Your task to perform on an android device: Set the phone to "Do not disturb". Image 0: 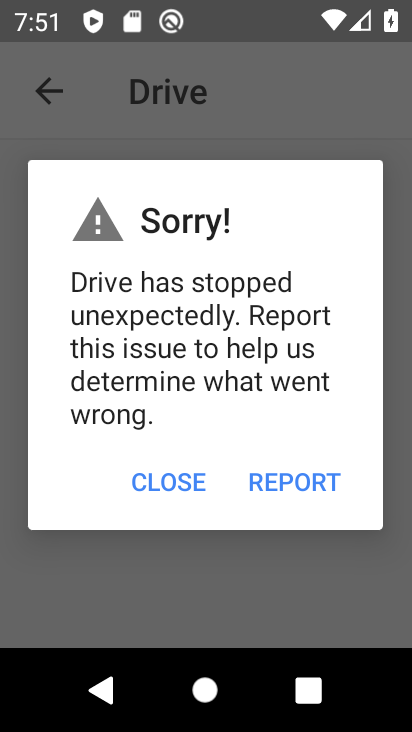
Step 0: press home button
Your task to perform on an android device: Set the phone to "Do not disturb". Image 1: 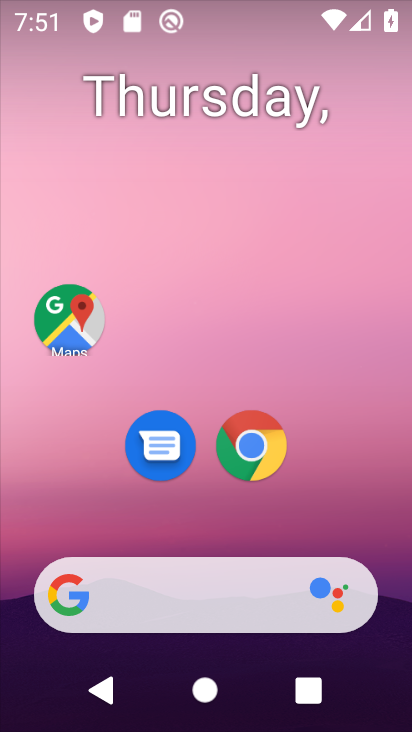
Step 1: drag from (341, 541) to (340, 7)
Your task to perform on an android device: Set the phone to "Do not disturb". Image 2: 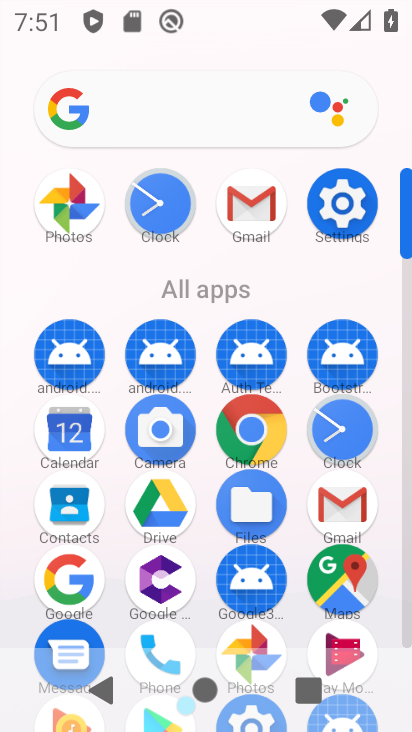
Step 2: click (330, 205)
Your task to perform on an android device: Set the phone to "Do not disturb". Image 3: 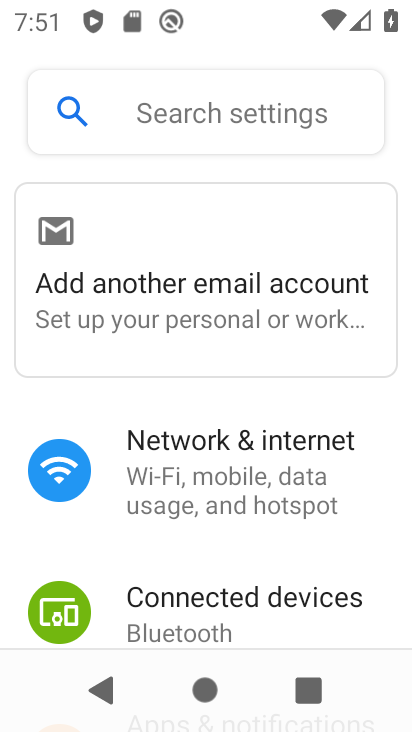
Step 3: drag from (378, 630) to (392, 44)
Your task to perform on an android device: Set the phone to "Do not disturb". Image 4: 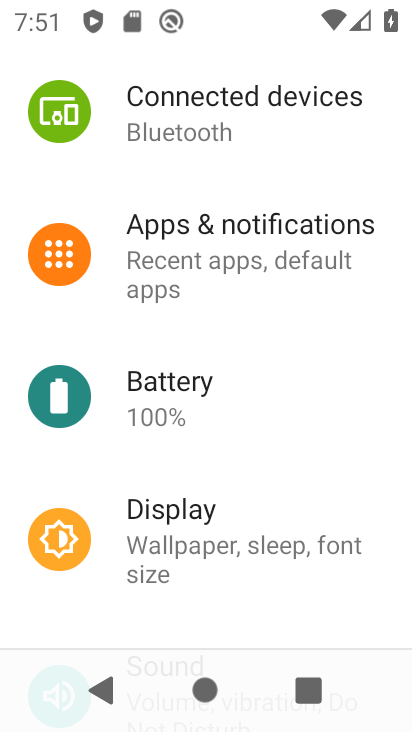
Step 4: drag from (277, 528) to (289, 109)
Your task to perform on an android device: Set the phone to "Do not disturb". Image 5: 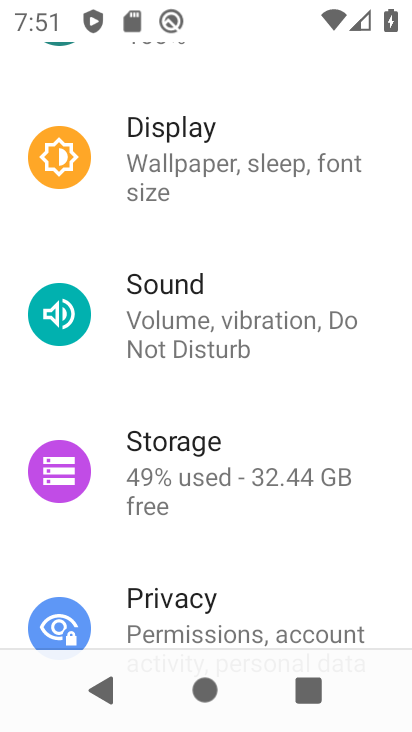
Step 5: click (166, 334)
Your task to perform on an android device: Set the phone to "Do not disturb". Image 6: 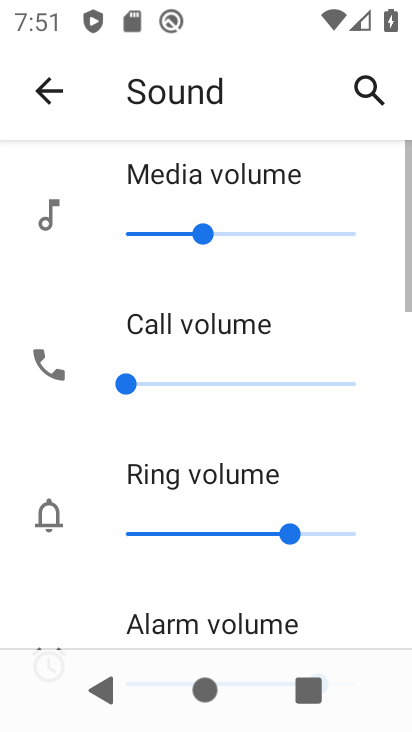
Step 6: drag from (286, 582) to (252, 108)
Your task to perform on an android device: Set the phone to "Do not disturb". Image 7: 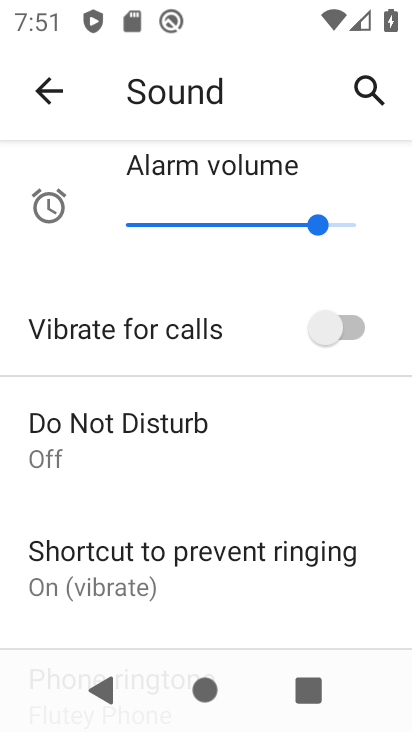
Step 7: click (115, 439)
Your task to perform on an android device: Set the phone to "Do not disturb". Image 8: 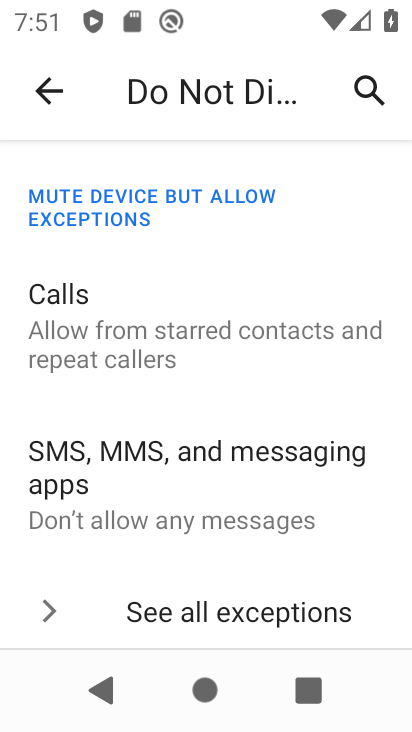
Step 8: drag from (171, 536) to (159, 27)
Your task to perform on an android device: Set the phone to "Do not disturb". Image 9: 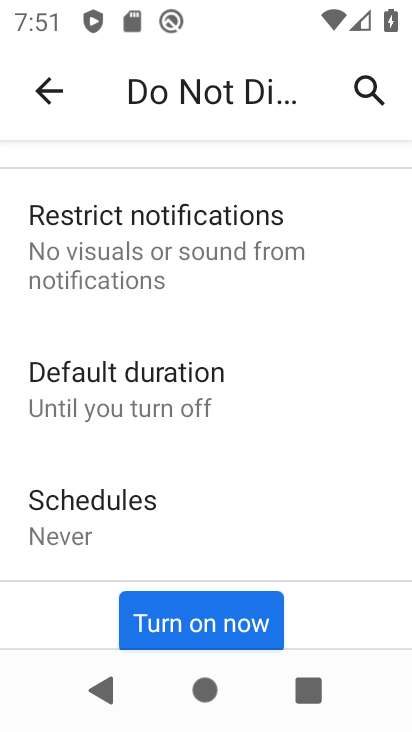
Step 9: drag from (135, 468) to (143, 118)
Your task to perform on an android device: Set the phone to "Do not disturb". Image 10: 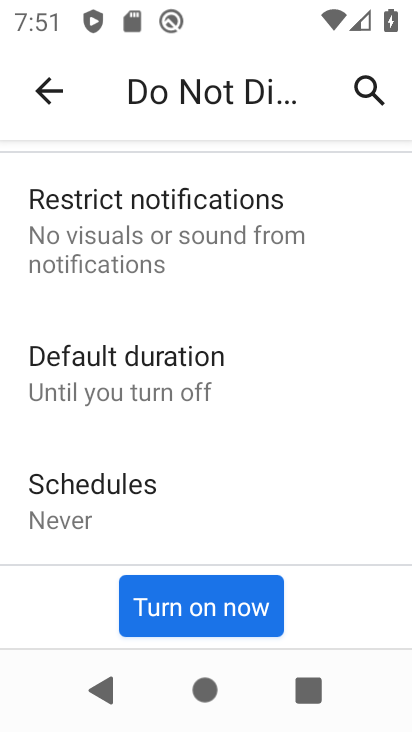
Step 10: click (203, 615)
Your task to perform on an android device: Set the phone to "Do not disturb". Image 11: 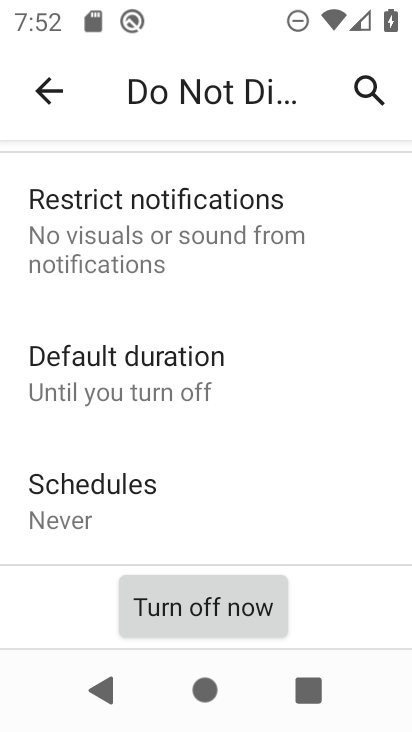
Step 11: task complete